Your task to perform on an android device: Show the shopping cart on target.com. Search for dell xps on target.com, select the first entry, and add it to the cart. Image 0: 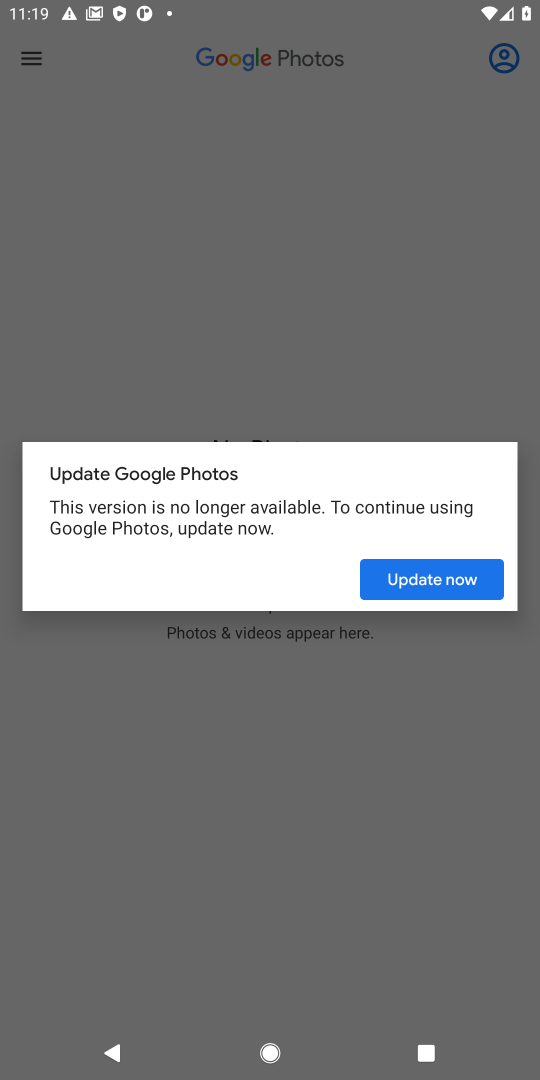
Step 0: press home button
Your task to perform on an android device: Show the shopping cart on target.com. Search for dell xps on target.com, select the first entry, and add it to the cart. Image 1: 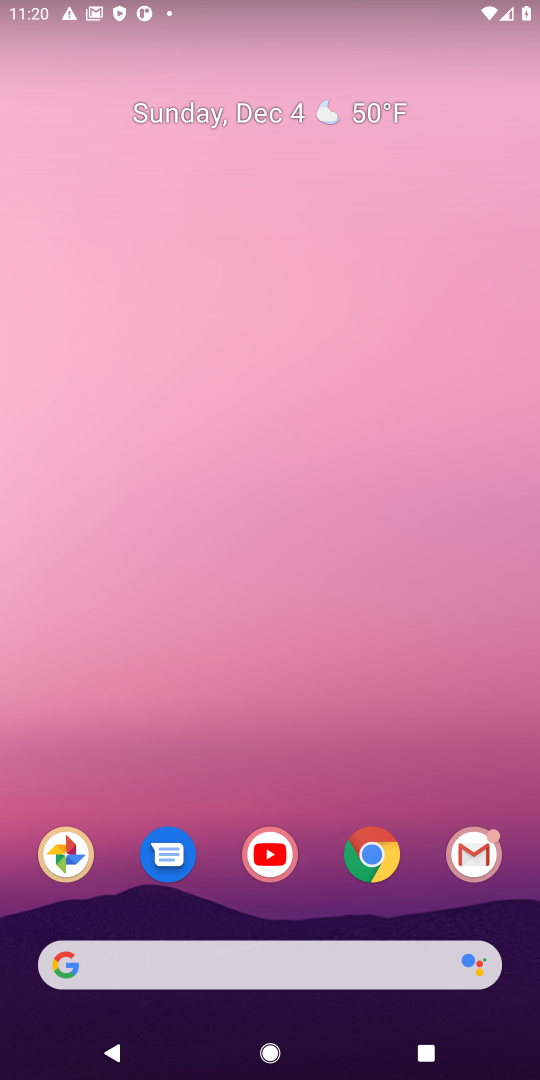
Step 1: click (308, 973)
Your task to perform on an android device: Show the shopping cart on target.com. Search for dell xps on target.com, select the first entry, and add it to the cart. Image 2: 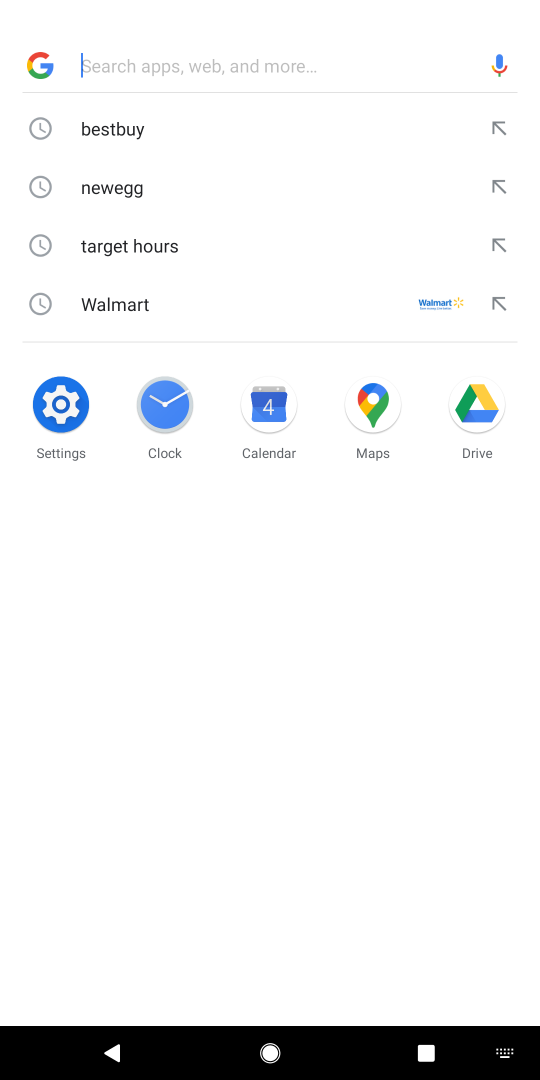
Step 2: type "target"
Your task to perform on an android device: Show the shopping cart on target.com. Search for dell xps on target.com, select the first entry, and add it to the cart. Image 3: 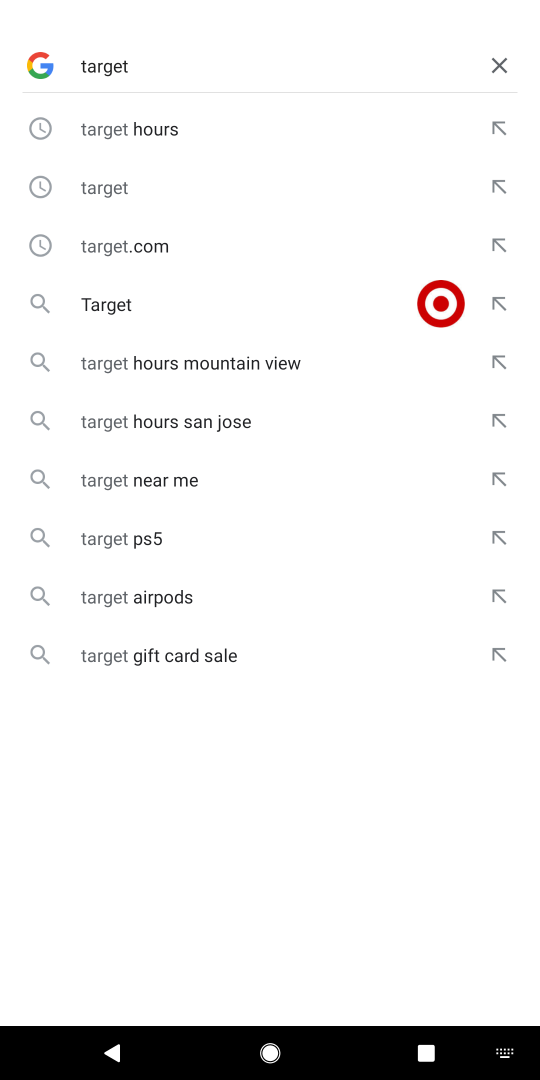
Step 3: click (129, 144)
Your task to perform on an android device: Show the shopping cart on target.com. Search for dell xps on target.com, select the first entry, and add it to the cart. Image 4: 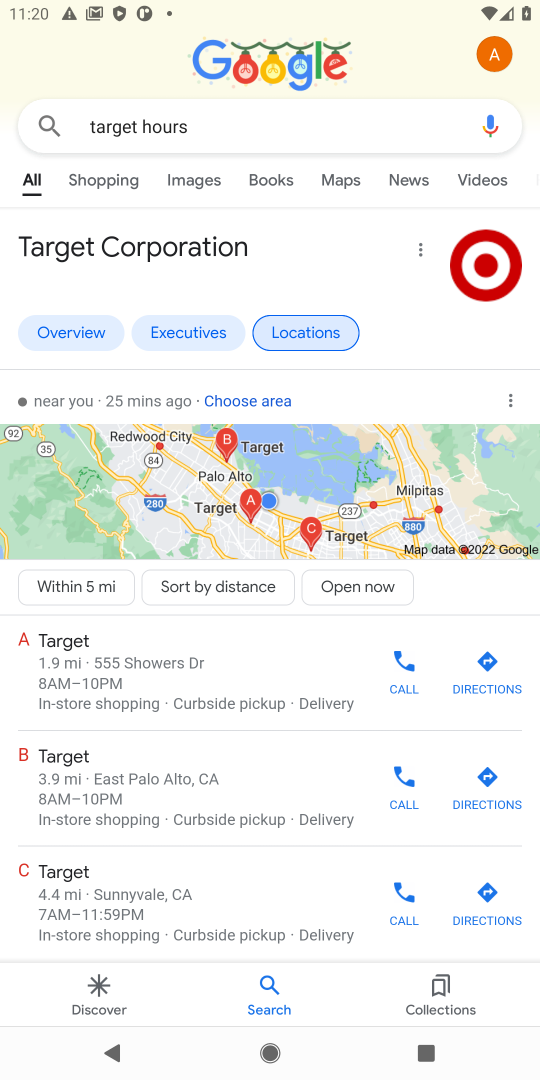
Step 4: task complete